Your task to perform on an android device: see creations saved in the google photos Image 0: 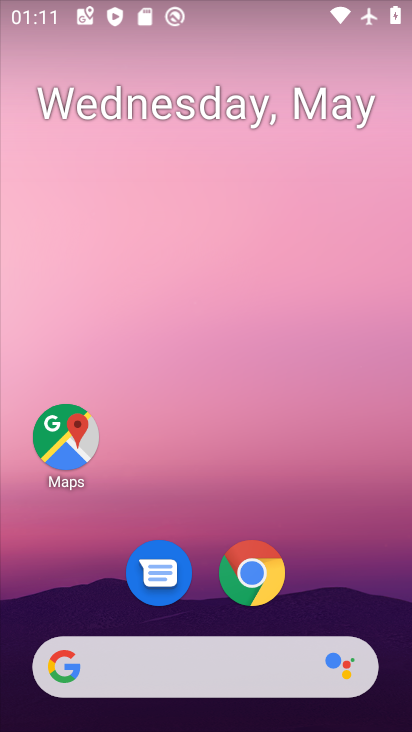
Step 0: drag from (270, 615) to (281, 297)
Your task to perform on an android device: see creations saved in the google photos Image 1: 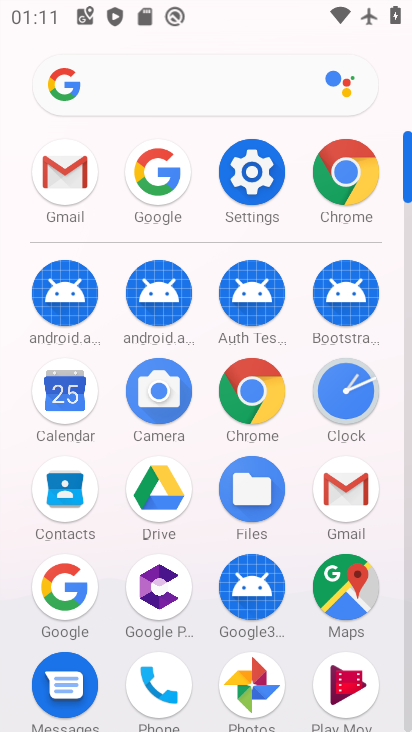
Step 1: click (242, 675)
Your task to perform on an android device: see creations saved in the google photos Image 2: 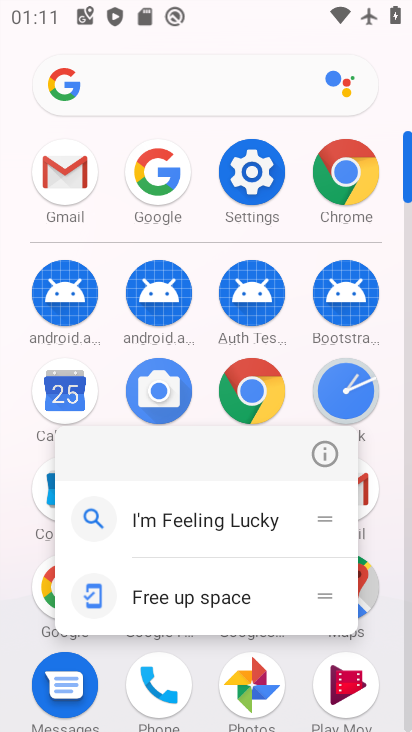
Step 2: click (244, 668)
Your task to perform on an android device: see creations saved in the google photos Image 3: 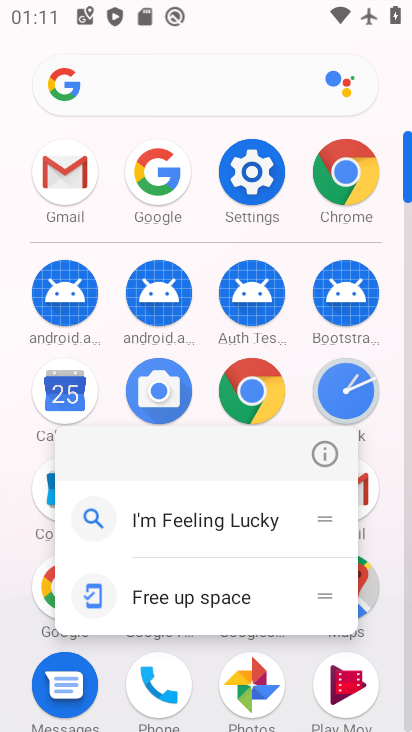
Step 3: click (237, 689)
Your task to perform on an android device: see creations saved in the google photos Image 4: 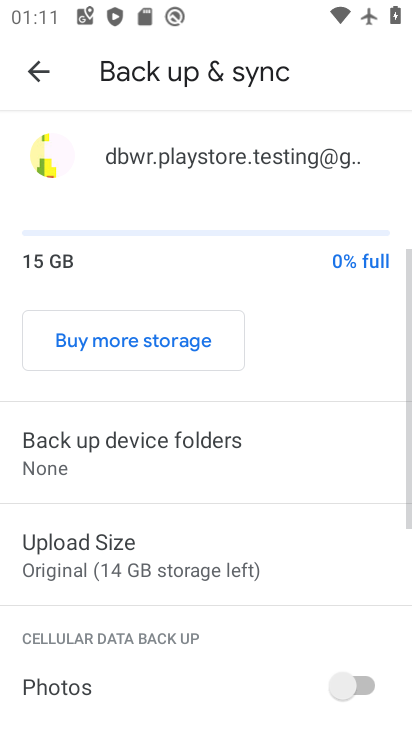
Step 4: click (25, 87)
Your task to perform on an android device: see creations saved in the google photos Image 5: 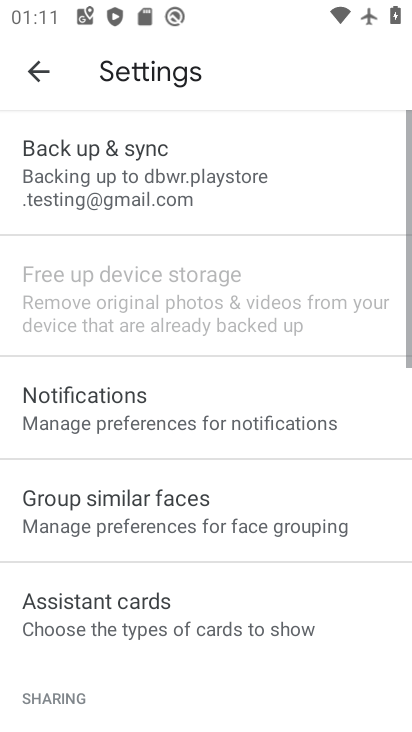
Step 5: click (50, 68)
Your task to perform on an android device: see creations saved in the google photos Image 6: 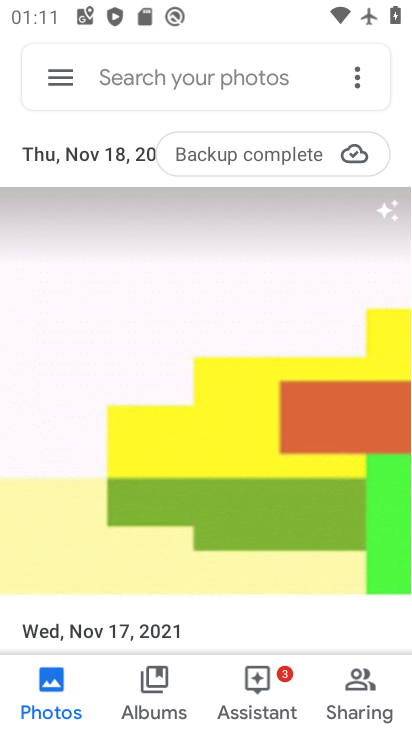
Step 6: task complete